Your task to perform on an android device: Play the last video I watched on Youtube Image 0: 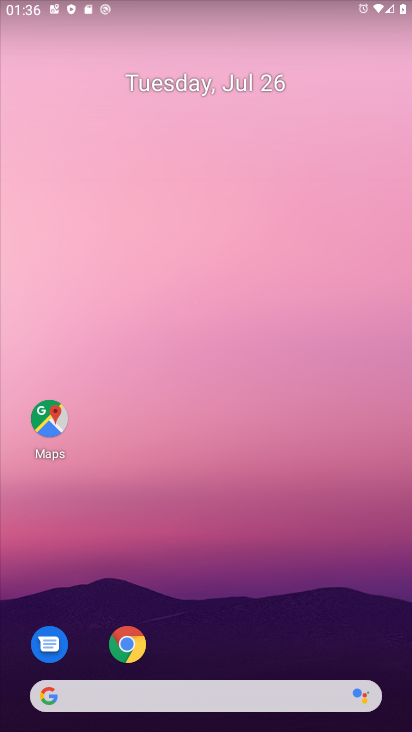
Step 0: drag from (261, 618) to (250, 397)
Your task to perform on an android device: Play the last video I watched on Youtube Image 1: 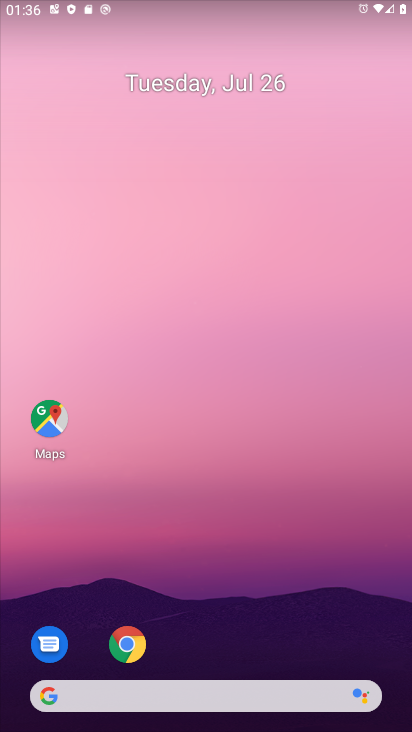
Step 1: drag from (217, 665) to (337, 14)
Your task to perform on an android device: Play the last video I watched on Youtube Image 2: 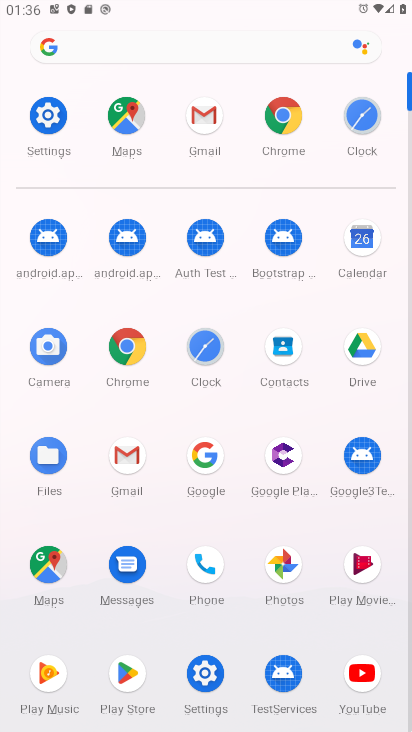
Step 2: click (363, 684)
Your task to perform on an android device: Play the last video I watched on Youtube Image 3: 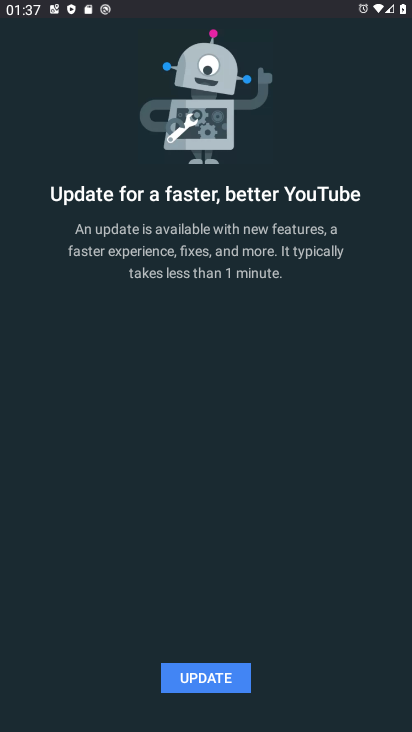
Step 3: task complete